Your task to perform on an android device: Go to Android settings Image 0: 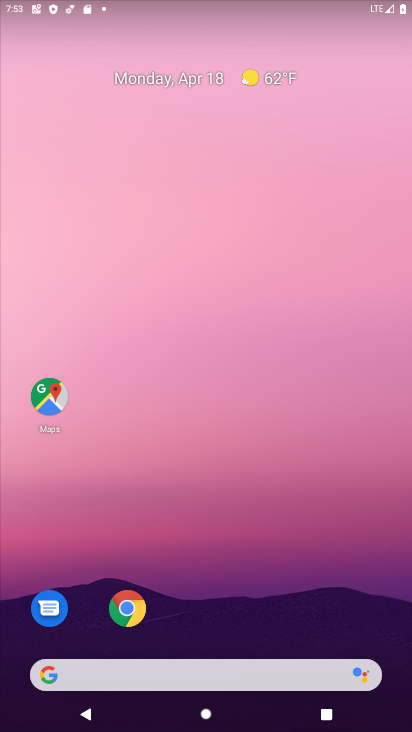
Step 0: drag from (158, 627) to (169, 120)
Your task to perform on an android device: Go to Android settings Image 1: 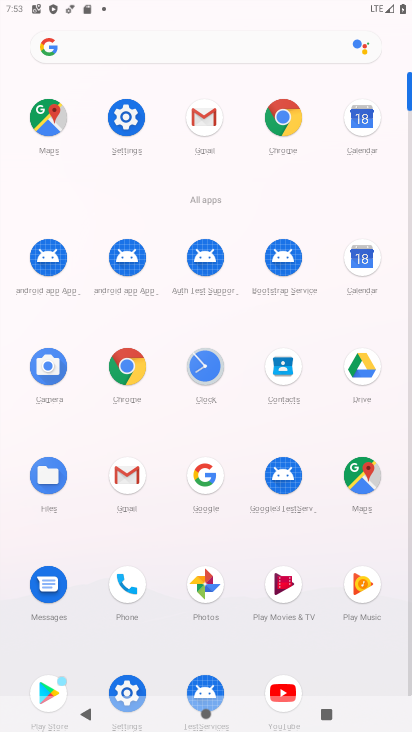
Step 1: click (109, 119)
Your task to perform on an android device: Go to Android settings Image 2: 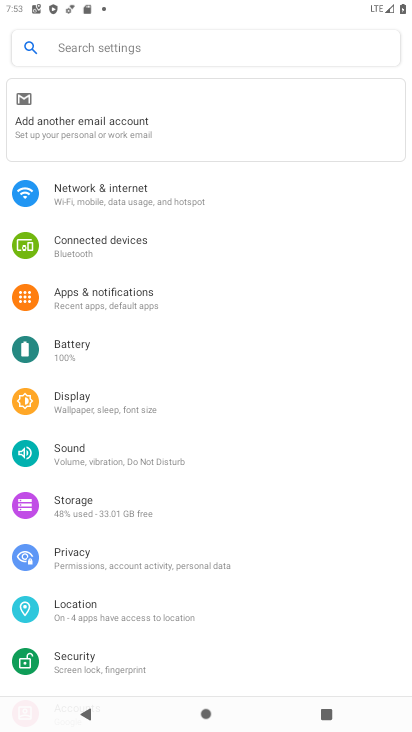
Step 2: drag from (177, 599) to (178, 293)
Your task to perform on an android device: Go to Android settings Image 3: 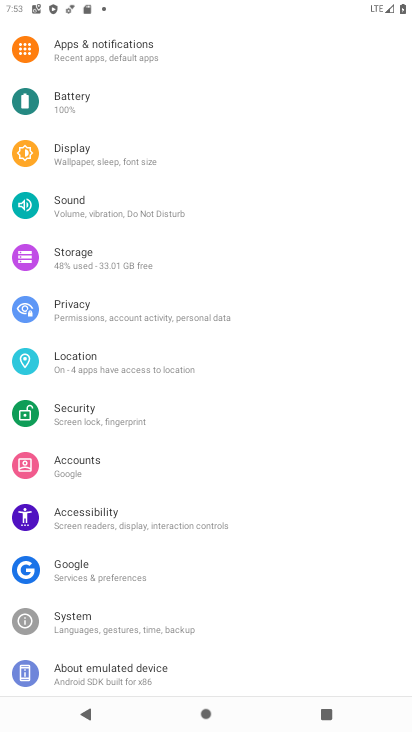
Step 3: click (136, 672)
Your task to perform on an android device: Go to Android settings Image 4: 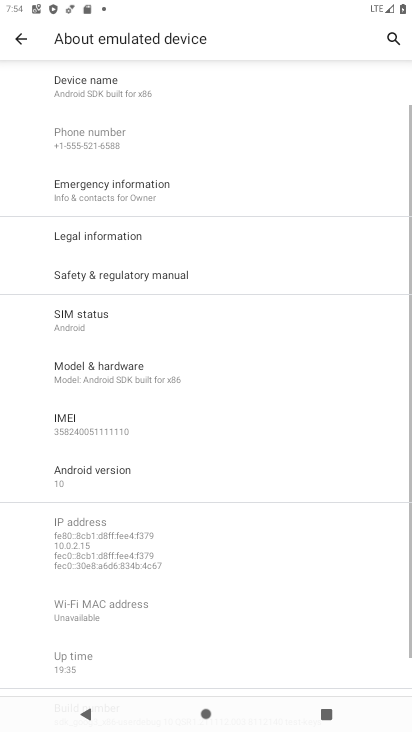
Step 4: task complete